Your task to perform on an android device: Open Google Maps Image 0: 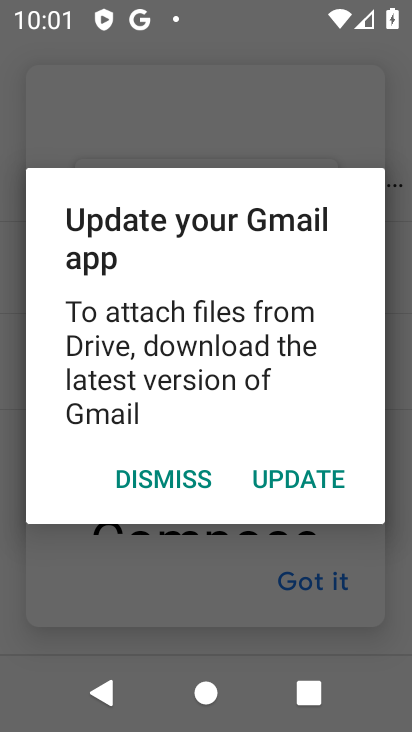
Step 0: press home button
Your task to perform on an android device: Open Google Maps Image 1: 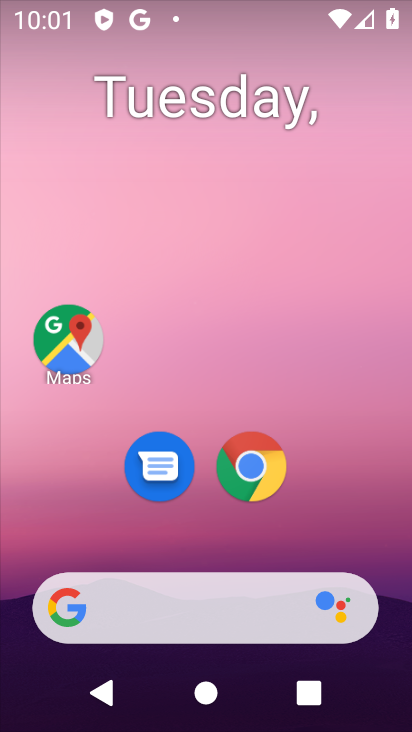
Step 1: click (76, 350)
Your task to perform on an android device: Open Google Maps Image 2: 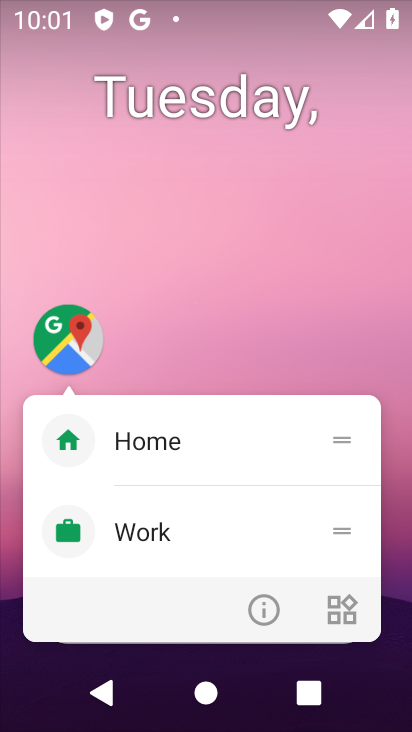
Step 2: click (58, 334)
Your task to perform on an android device: Open Google Maps Image 3: 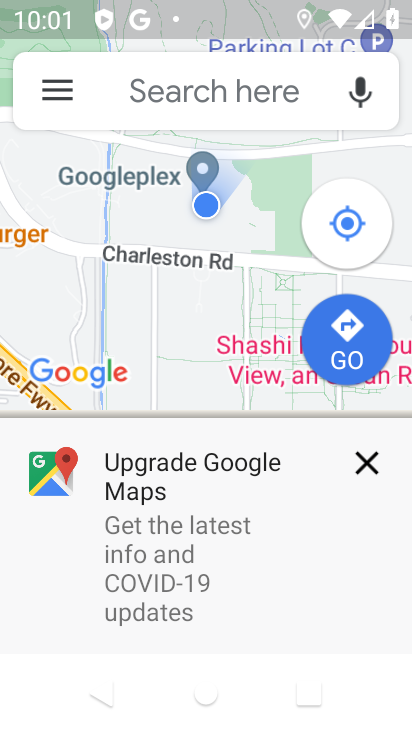
Step 3: task complete